Your task to perform on an android device: set the timer Image 0: 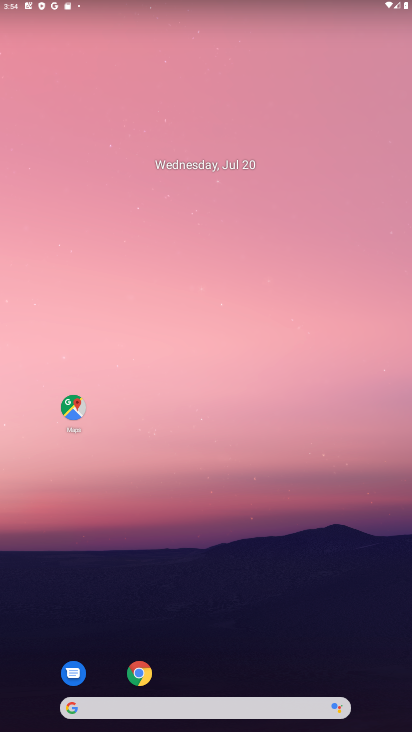
Step 0: press home button
Your task to perform on an android device: set the timer Image 1: 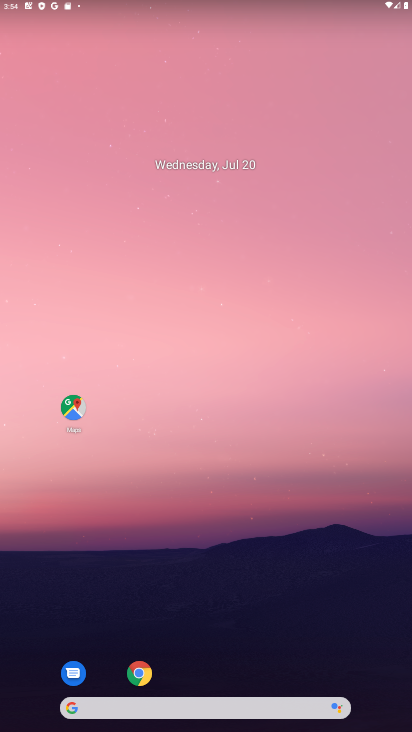
Step 1: drag from (225, 653) to (293, 13)
Your task to perform on an android device: set the timer Image 2: 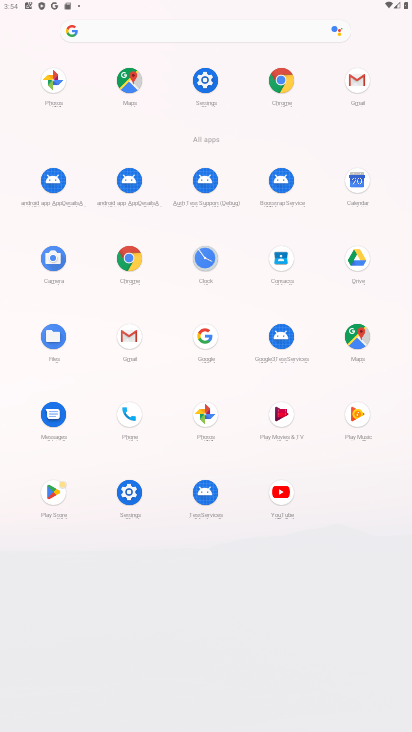
Step 2: click (207, 260)
Your task to perform on an android device: set the timer Image 3: 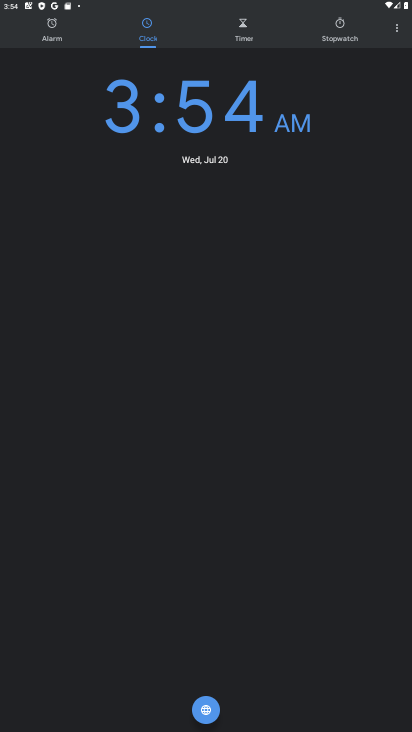
Step 3: click (247, 27)
Your task to perform on an android device: set the timer Image 4: 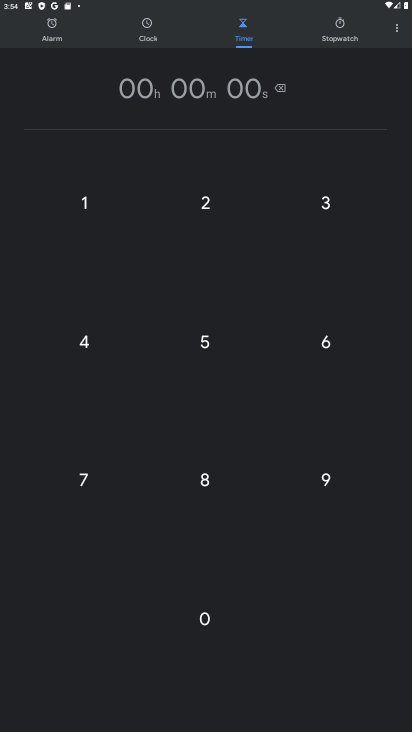
Step 4: click (202, 206)
Your task to perform on an android device: set the timer Image 5: 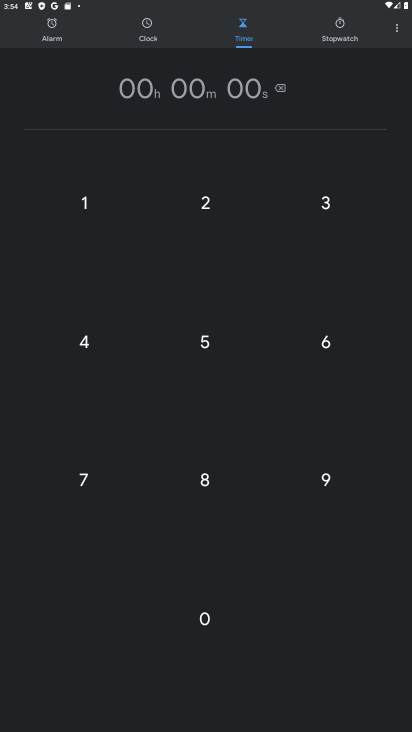
Step 5: click (202, 206)
Your task to perform on an android device: set the timer Image 6: 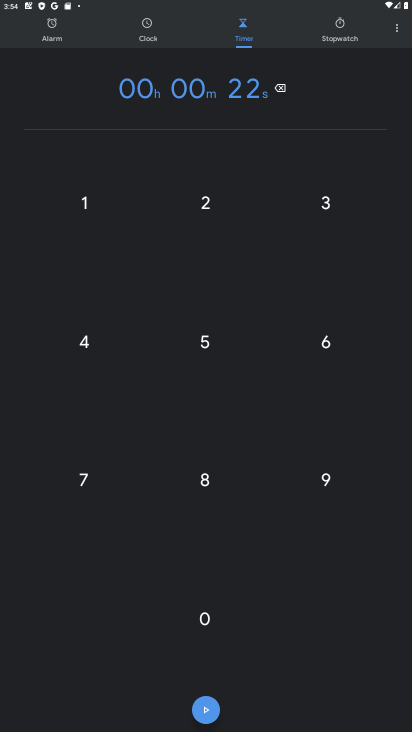
Step 6: click (80, 334)
Your task to perform on an android device: set the timer Image 7: 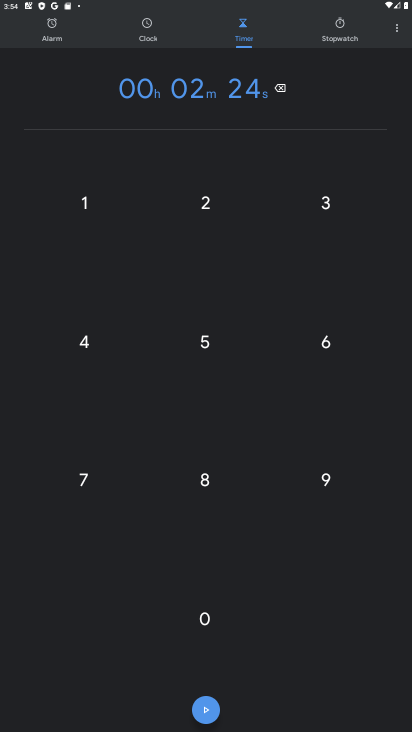
Step 7: click (96, 204)
Your task to perform on an android device: set the timer Image 8: 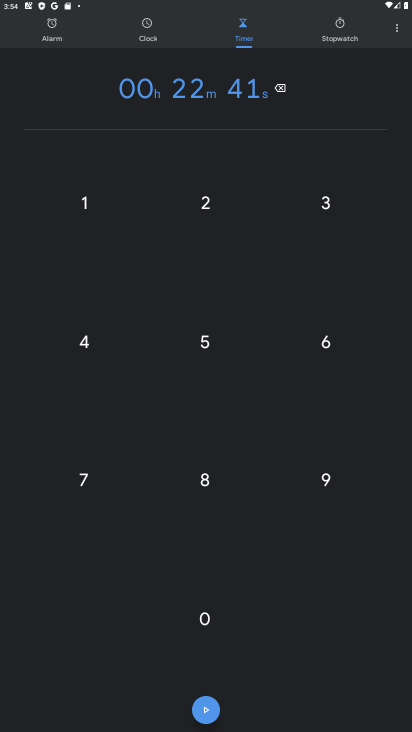
Step 8: click (211, 342)
Your task to perform on an android device: set the timer Image 9: 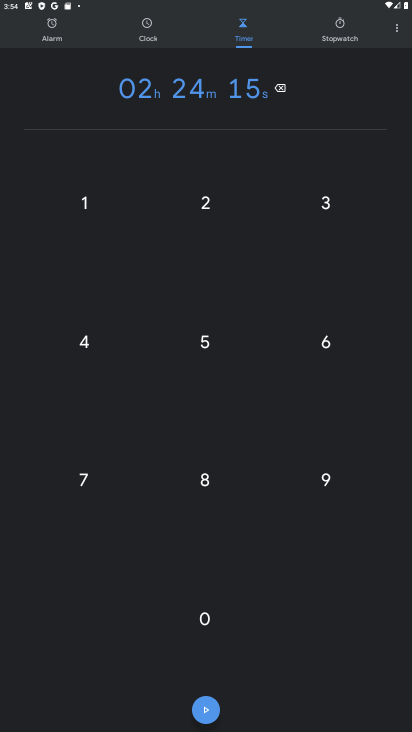
Step 9: click (88, 346)
Your task to perform on an android device: set the timer Image 10: 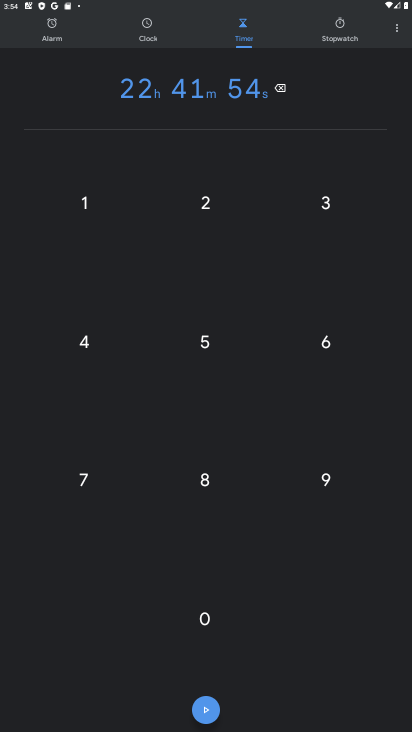
Step 10: click (206, 713)
Your task to perform on an android device: set the timer Image 11: 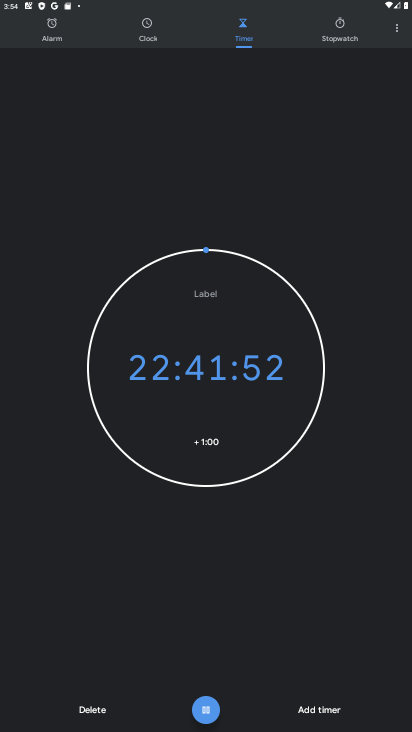
Step 11: task complete